Your task to perform on an android device: Is it going to rain today? Image 0: 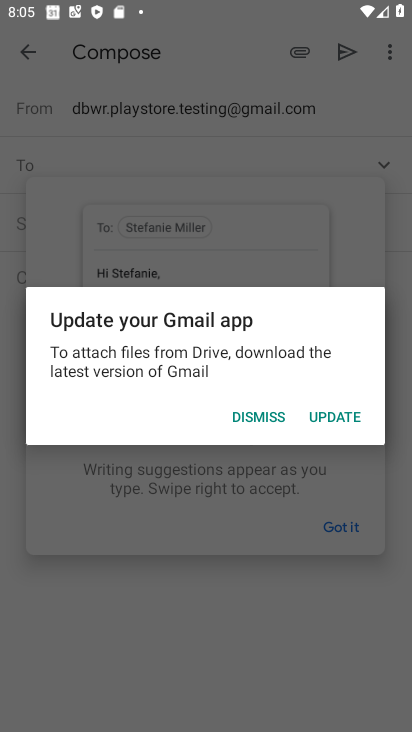
Step 0: press home button
Your task to perform on an android device: Is it going to rain today? Image 1: 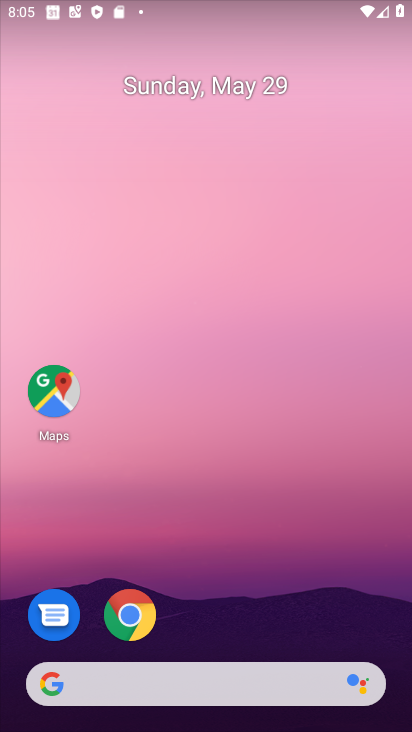
Step 1: click (149, 687)
Your task to perform on an android device: Is it going to rain today? Image 2: 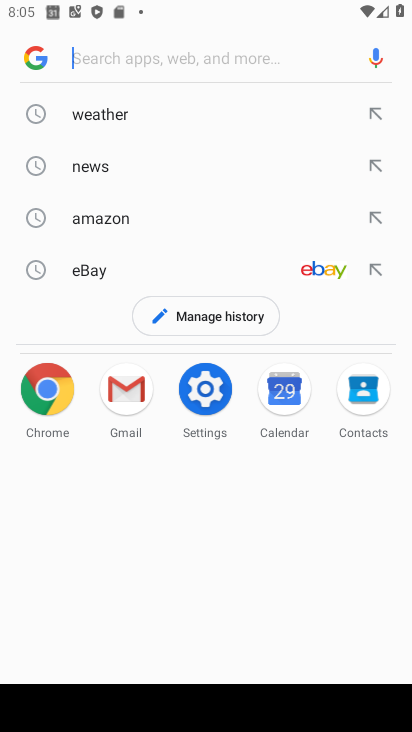
Step 2: type "Is it going to rain today"
Your task to perform on an android device: Is it going to rain today? Image 3: 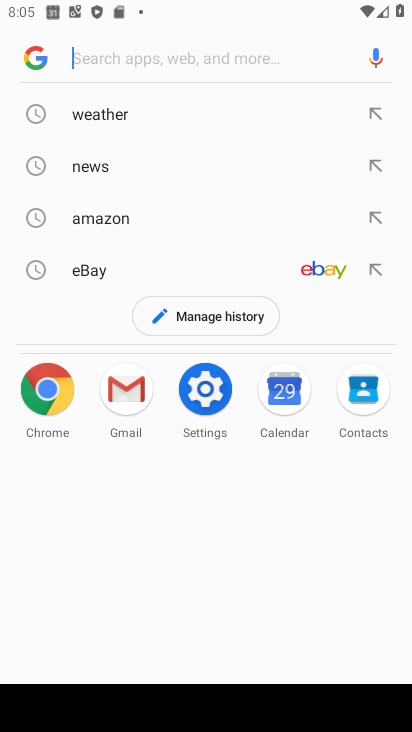
Step 3: click (165, 57)
Your task to perform on an android device: Is it going to rain today? Image 4: 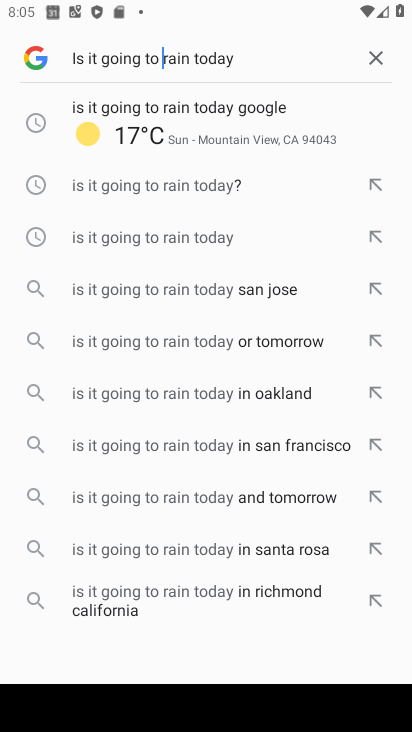
Step 4: click (172, 187)
Your task to perform on an android device: Is it going to rain today? Image 5: 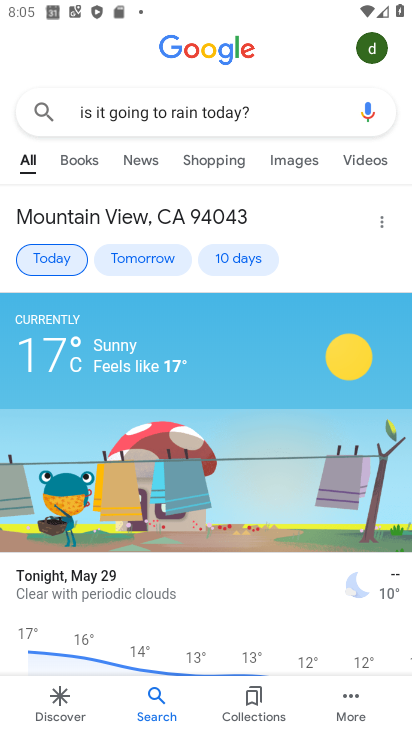
Step 5: task complete